Your task to perform on an android device: Open calendar and show me the second week of next month Image 0: 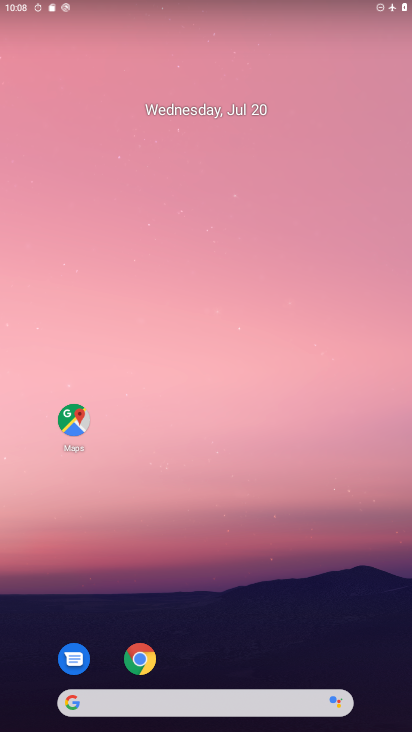
Step 0: drag from (250, 580) to (287, 63)
Your task to perform on an android device: Open calendar and show me the second week of next month Image 1: 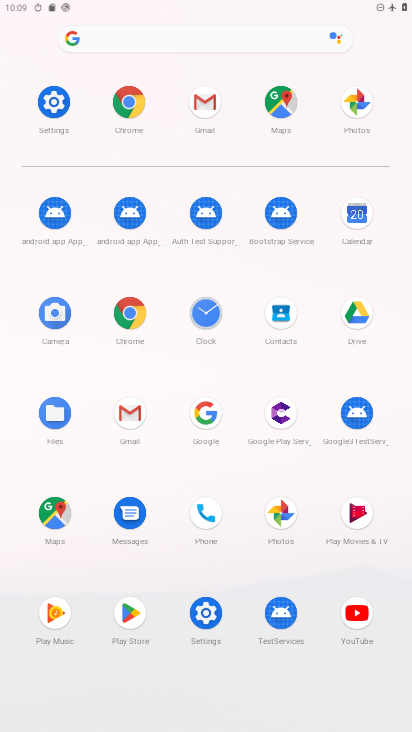
Step 1: click (353, 205)
Your task to perform on an android device: Open calendar and show me the second week of next month Image 2: 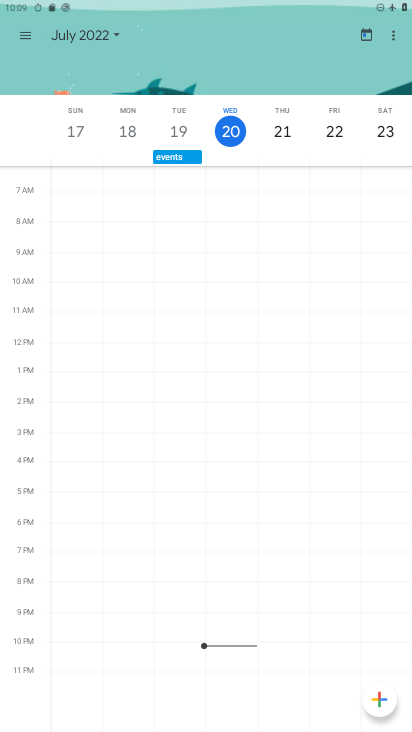
Step 2: click (110, 36)
Your task to perform on an android device: Open calendar and show me the second week of next month Image 3: 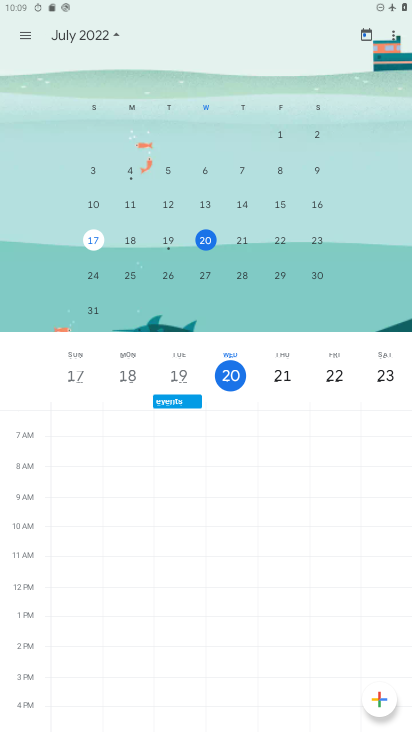
Step 3: drag from (323, 200) to (1, 181)
Your task to perform on an android device: Open calendar and show me the second week of next month Image 4: 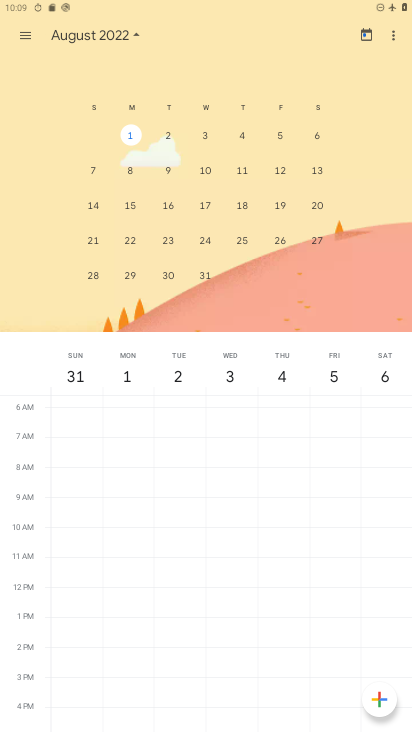
Step 4: click (207, 162)
Your task to perform on an android device: Open calendar and show me the second week of next month Image 5: 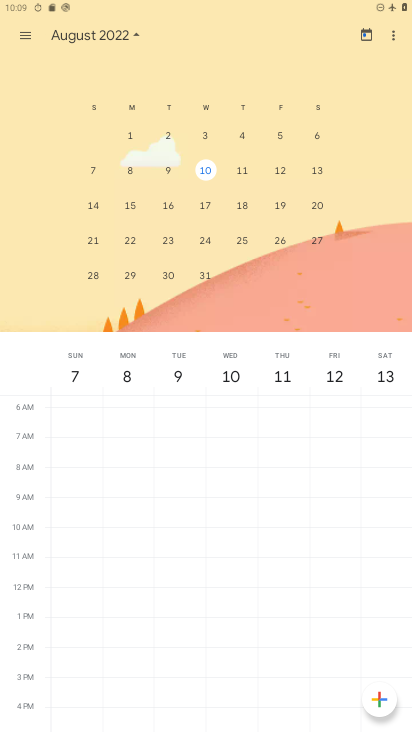
Step 5: task complete